Your task to perform on an android device: open app "Google Translate" (install if not already installed) Image 0: 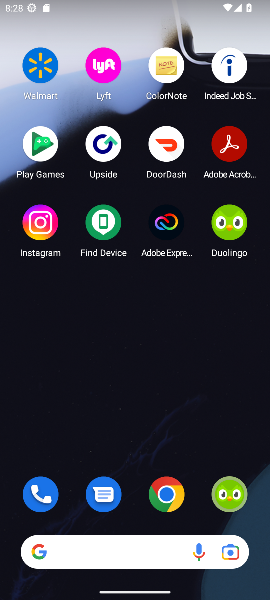
Step 0: drag from (135, 526) to (138, 22)
Your task to perform on an android device: open app "Google Translate" (install if not already installed) Image 1: 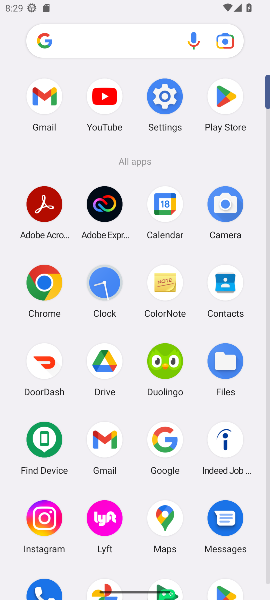
Step 1: drag from (190, 567) to (192, 187)
Your task to perform on an android device: open app "Google Translate" (install if not already installed) Image 2: 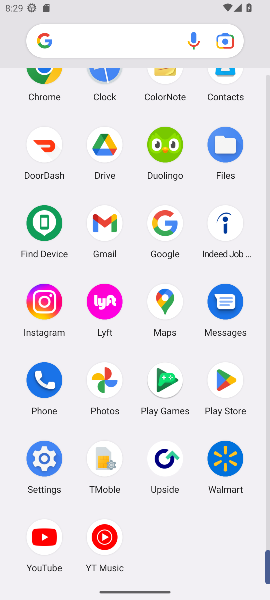
Step 2: click (223, 381)
Your task to perform on an android device: open app "Google Translate" (install if not already installed) Image 3: 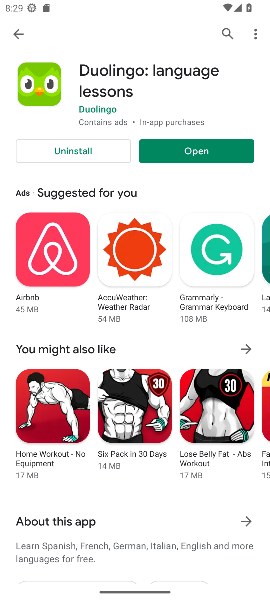
Step 3: click (220, 30)
Your task to perform on an android device: open app "Google Translate" (install if not already installed) Image 4: 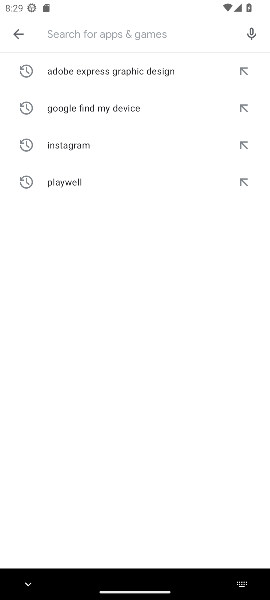
Step 4: type "Google Translate"
Your task to perform on an android device: open app "Google Translate" (install if not already installed) Image 5: 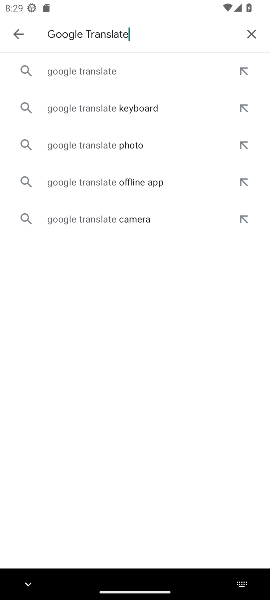
Step 5: click (78, 66)
Your task to perform on an android device: open app "Google Translate" (install if not already installed) Image 6: 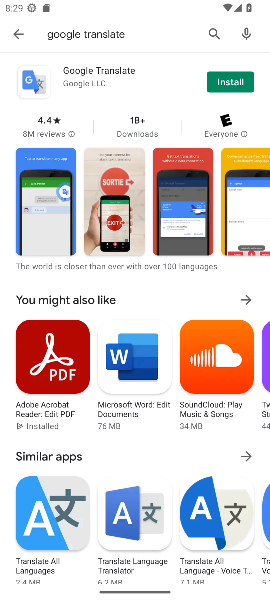
Step 6: click (231, 82)
Your task to perform on an android device: open app "Google Translate" (install if not already installed) Image 7: 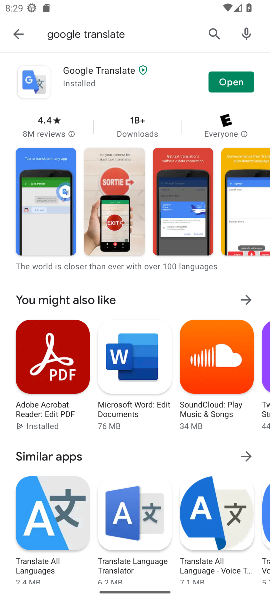
Step 7: click (225, 84)
Your task to perform on an android device: open app "Google Translate" (install if not already installed) Image 8: 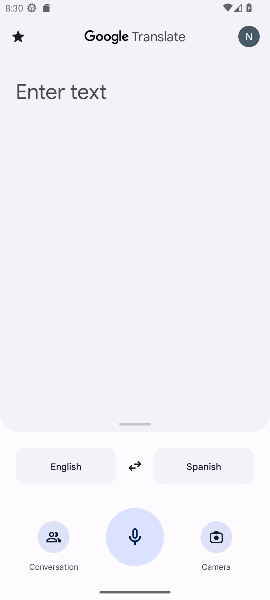
Step 8: task complete